Your task to perform on an android device: set the timer Image 0: 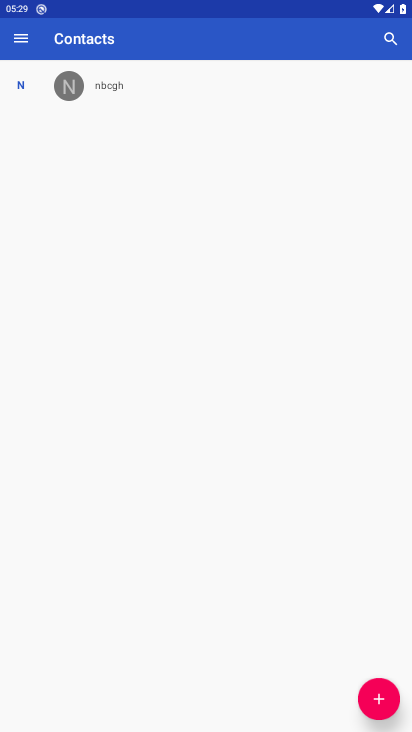
Step 0: press home button
Your task to perform on an android device: set the timer Image 1: 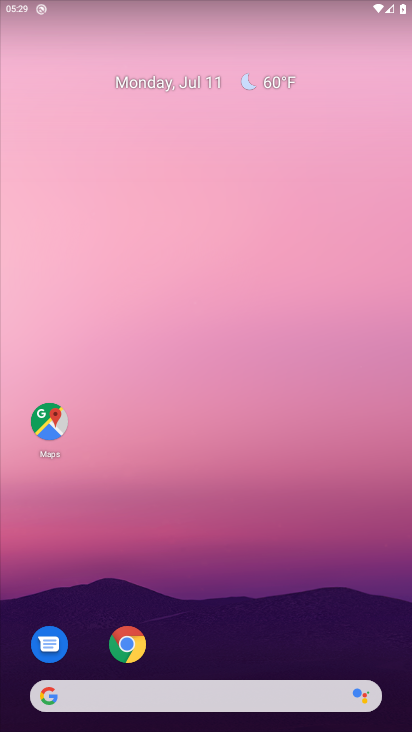
Step 1: drag from (213, 664) to (231, 280)
Your task to perform on an android device: set the timer Image 2: 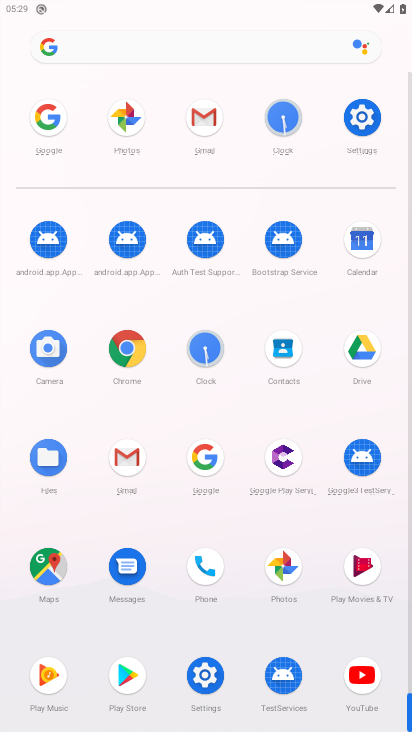
Step 2: click (196, 349)
Your task to perform on an android device: set the timer Image 3: 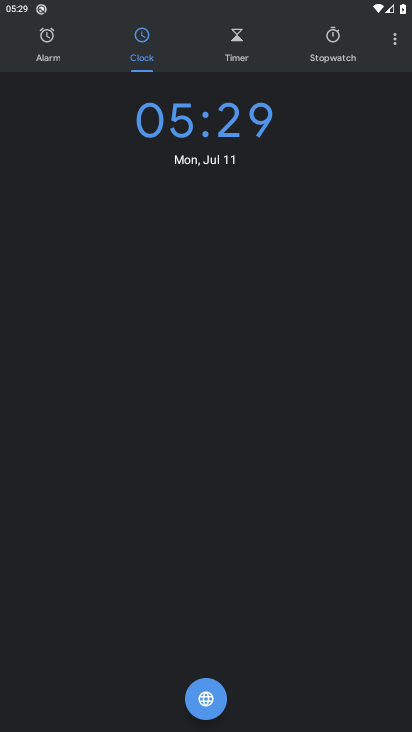
Step 3: click (240, 51)
Your task to perform on an android device: set the timer Image 4: 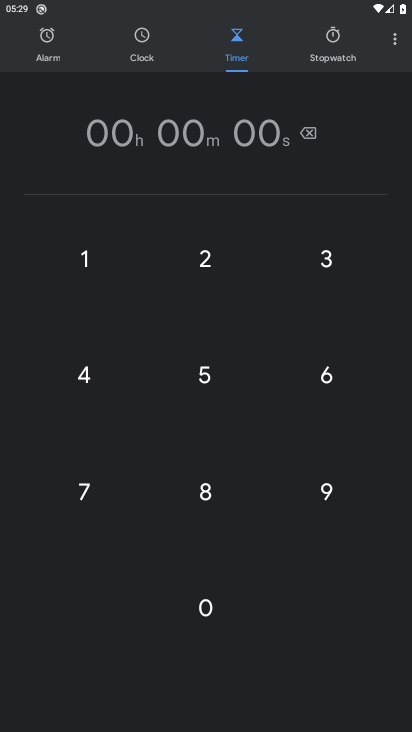
Step 4: click (212, 598)
Your task to perform on an android device: set the timer Image 5: 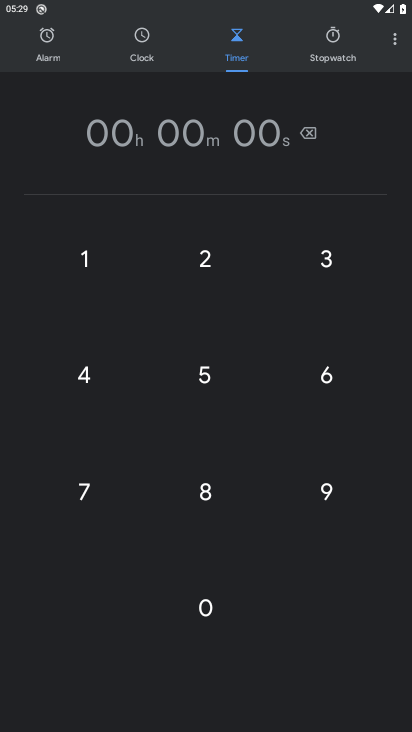
Step 5: click (206, 493)
Your task to perform on an android device: set the timer Image 6: 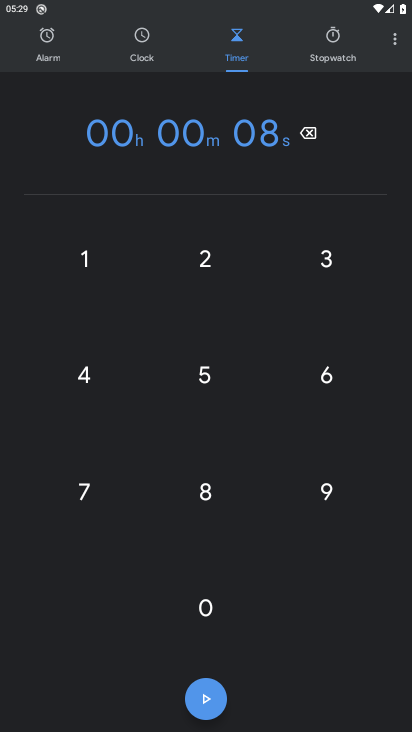
Step 6: click (201, 602)
Your task to perform on an android device: set the timer Image 7: 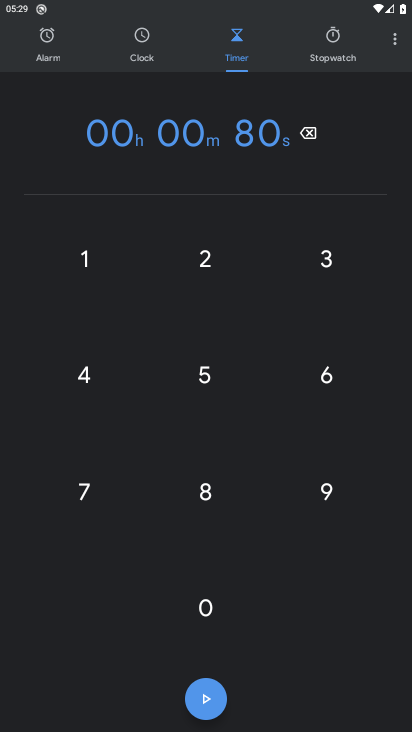
Step 7: click (82, 491)
Your task to perform on an android device: set the timer Image 8: 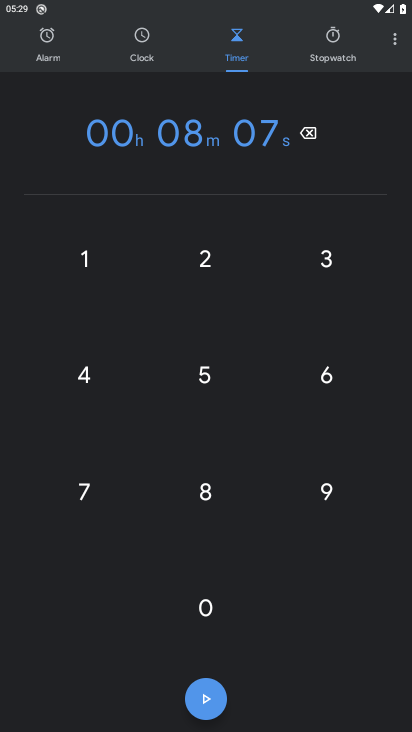
Step 8: click (209, 600)
Your task to perform on an android device: set the timer Image 9: 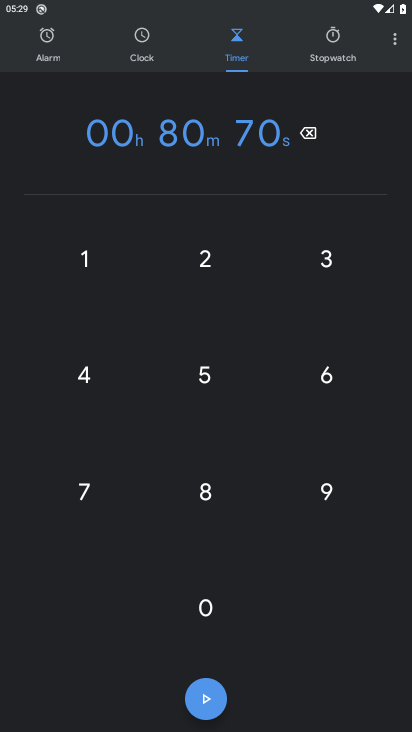
Step 9: click (320, 492)
Your task to perform on an android device: set the timer Image 10: 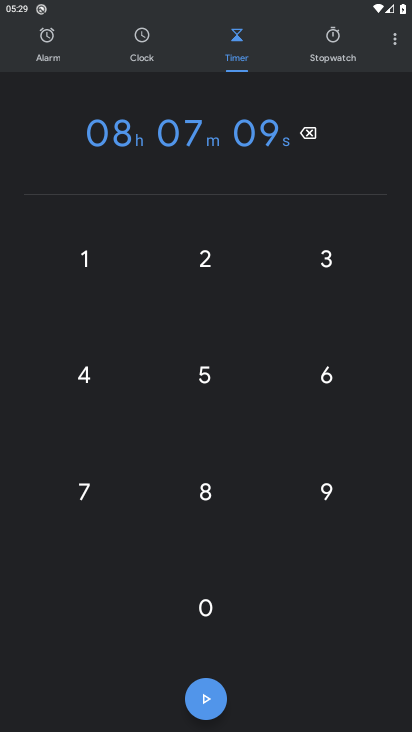
Step 10: click (206, 703)
Your task to perform on an android device: set the timer Image 11: 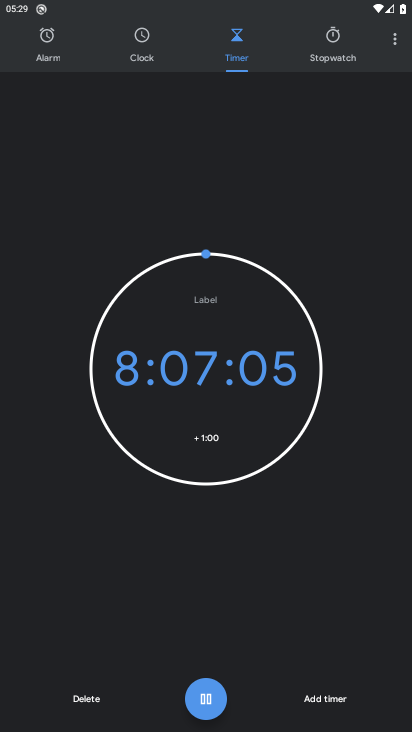
Step 11: task complete